Your task to perform on an android device: move an email to a new category in the gmail app Image 0: 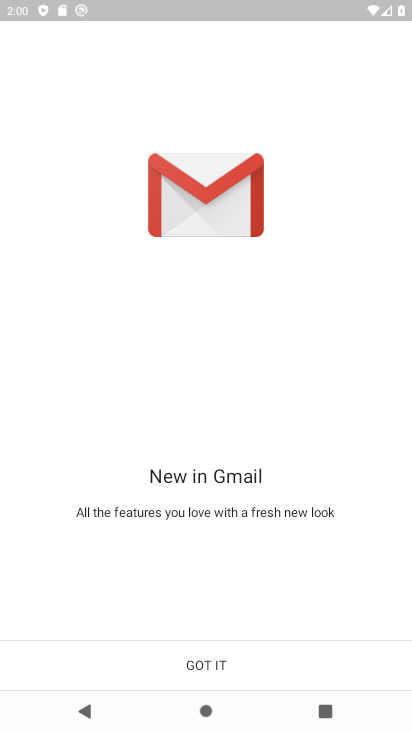
Step 0: press home button
Your task to perform on an android device: move an email to a new category in the gmail app Image 1: 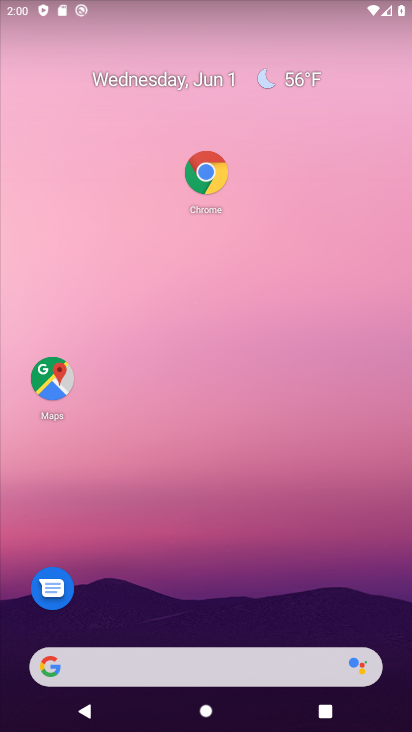
Step 1: drag from (255, 528) to (252, 34)
Your task to perform on an android device: move an email to a new category in the gmail app Image 2: 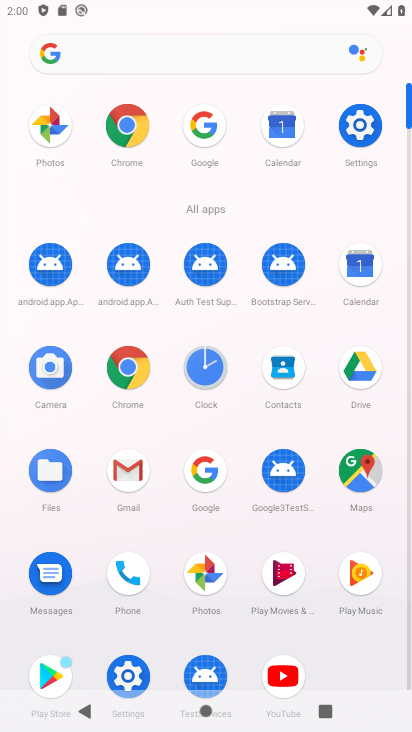
Step 2: click (118, 471)
Your task to perform on an android device: move an email to a new category in the gmail app Image 3: 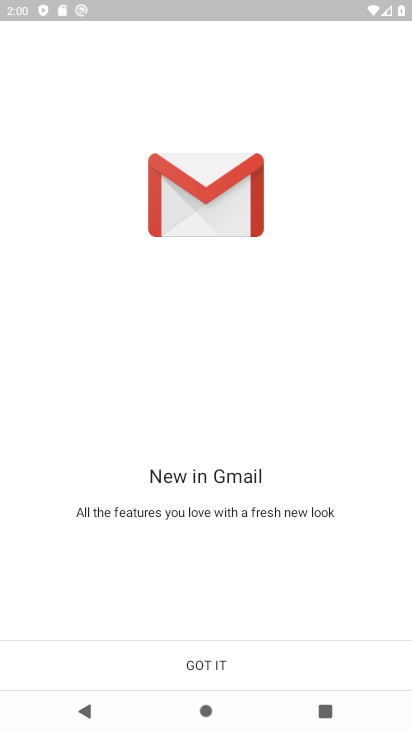
Step 3: click (229, 663)
Your task to perform on an android device: move an email to a new category in the gmail app Image 4: 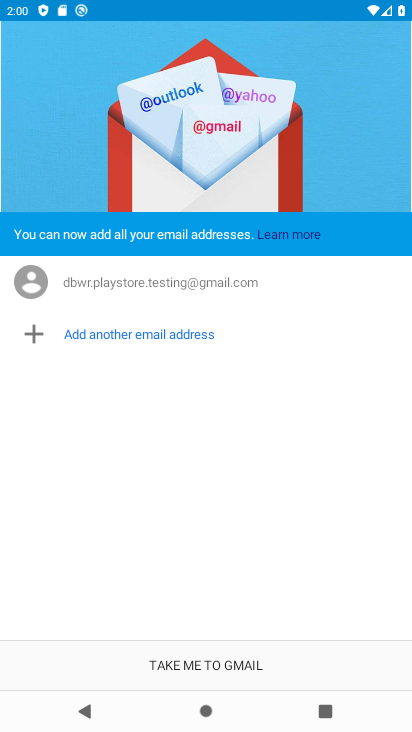
Step 4: click (226, 666)
Your task to perform on an android device: move an email to a new category in the gmail app Image 5: 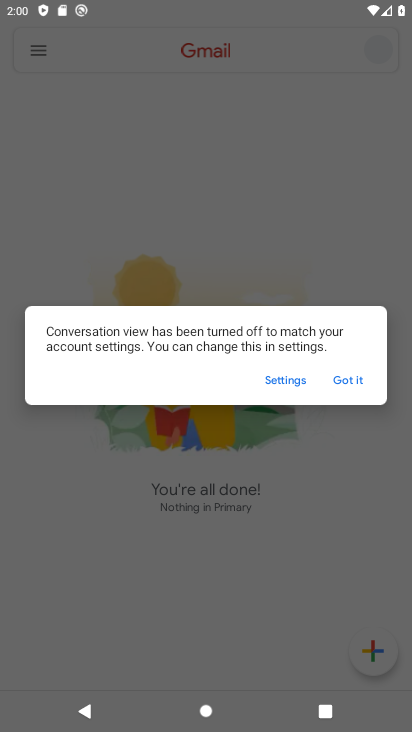
Step 5: click (347, 380)
Your task to perform on an android device: move an email to a new category in the gmail app Image 6: 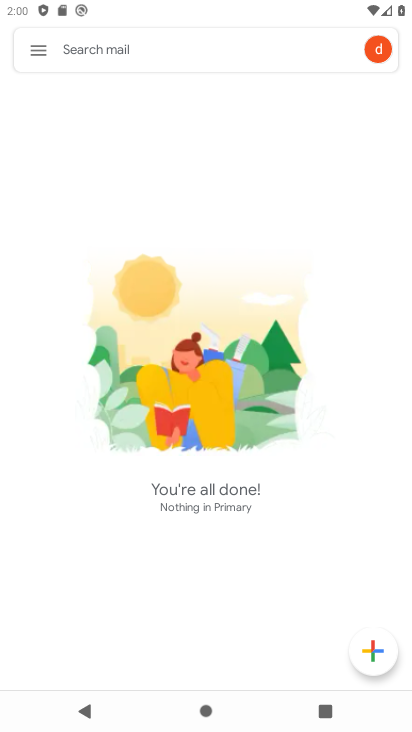
Step 6: click (37, 46)
Your task to perform on an android device: move an email to a new category in the gmail app Image 7: 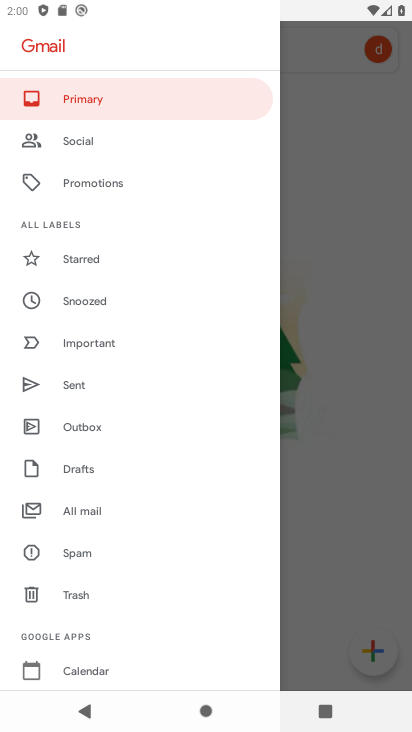
Step 7: click (95, 512)
Your task to perform on an android device: move an email to a new category in the gmail app Image 8: 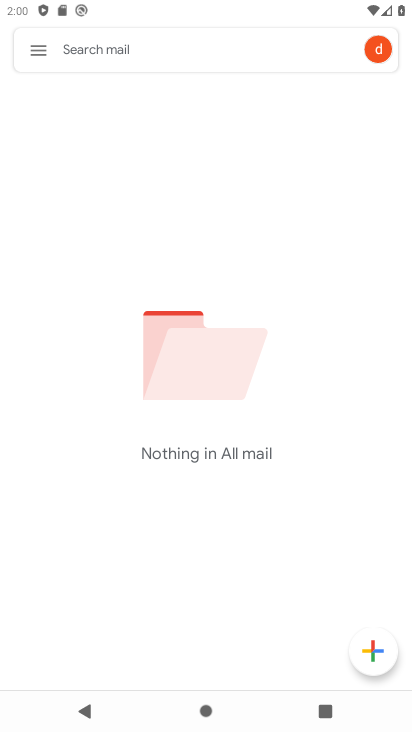
Step 8: task complete